Your task to perform on an android device: check android version Image 0: 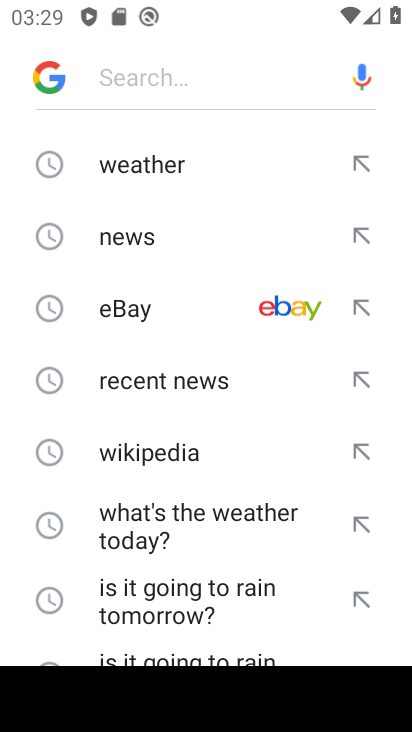
Step 0: press home button
Your task to perform on an android device: check android version Image 1: 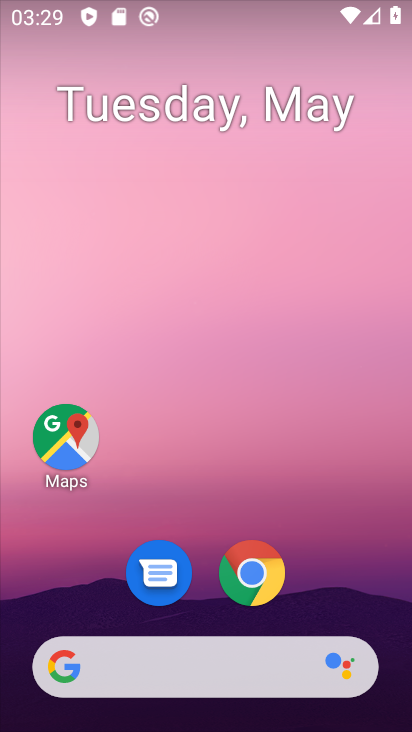
Step 1: drag from (219, 598) to (284, 62)
Your task to perform on an android device: check android version Image 2: 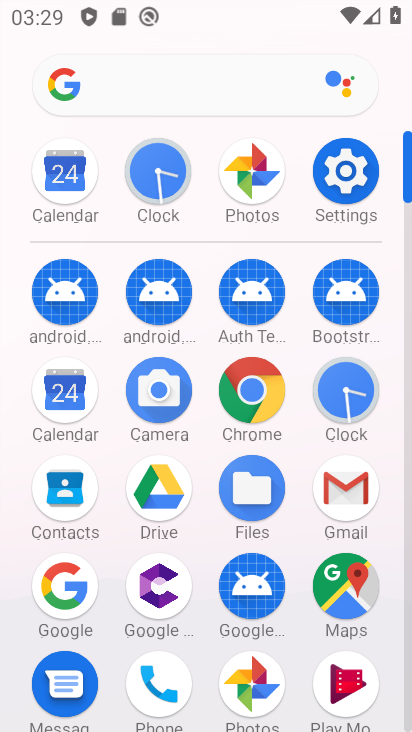
Step 2: click (379, 172)
Your task to perform on an android device: check android version Image 3: 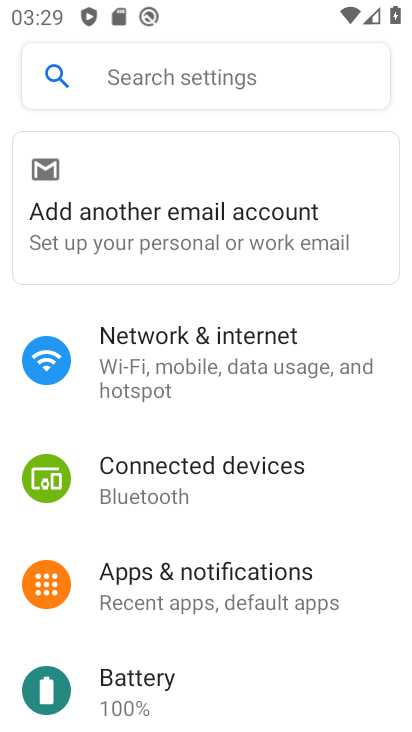
Step 3: drag from (199, 636) to (274, 202)
Your task to perform on an android device: check android version Image 4: 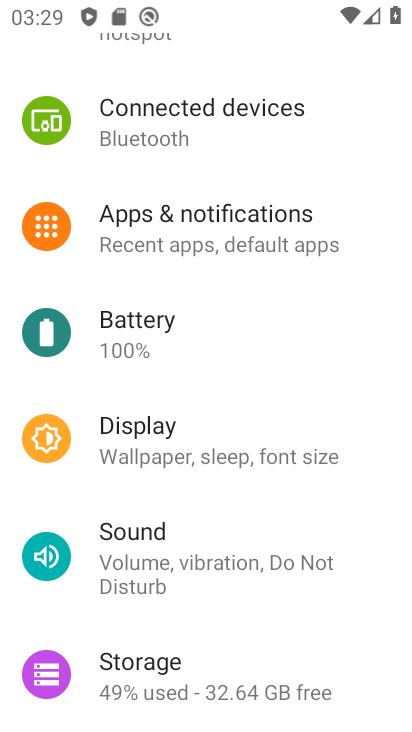
Step 4: drag from (209, 632) to (316, 89)
Your task to perform on an android device: check android version Image 5: 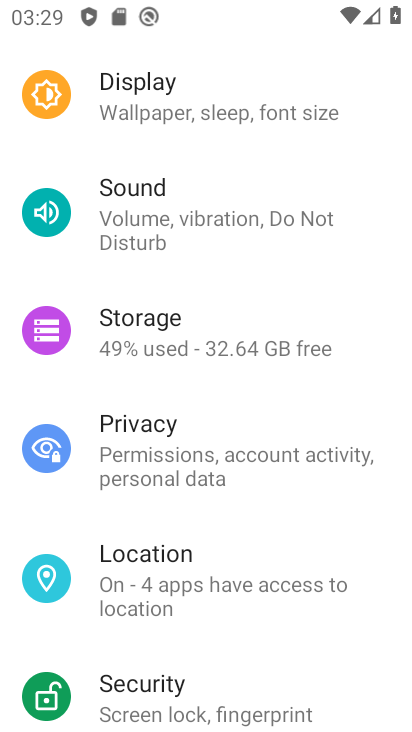
Step 5: drag from (205, 656) to (385, 48)
Your task to perform on an android device: check android version Image 6: 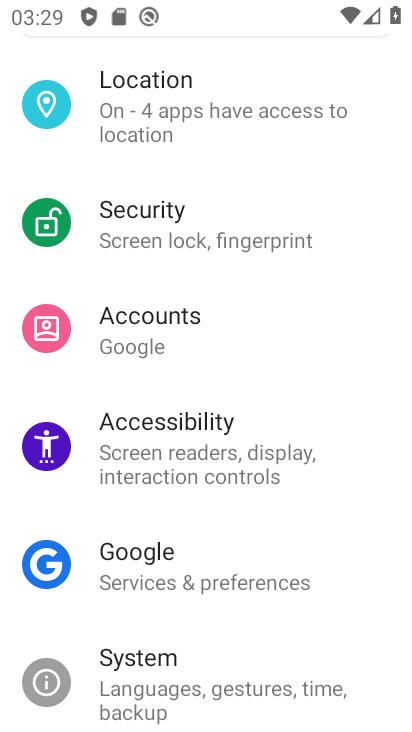
Step 6: drag from (201, 676) to (258, 18)
Your task to perform on an android device: check android version Image 7: 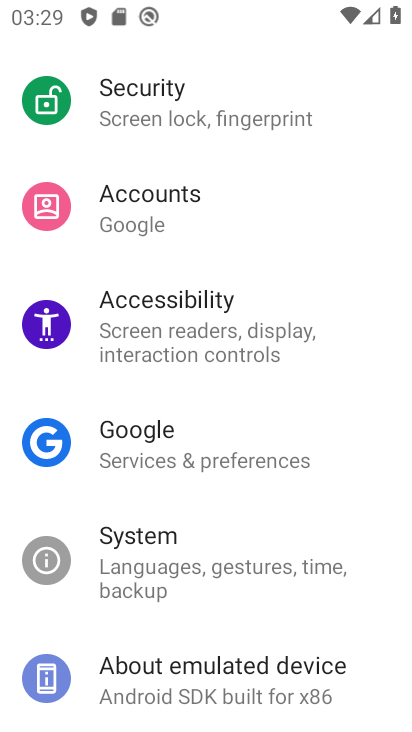
Step 7: click (191, 681)
Your task to perform on an android device: check android version Image 8: 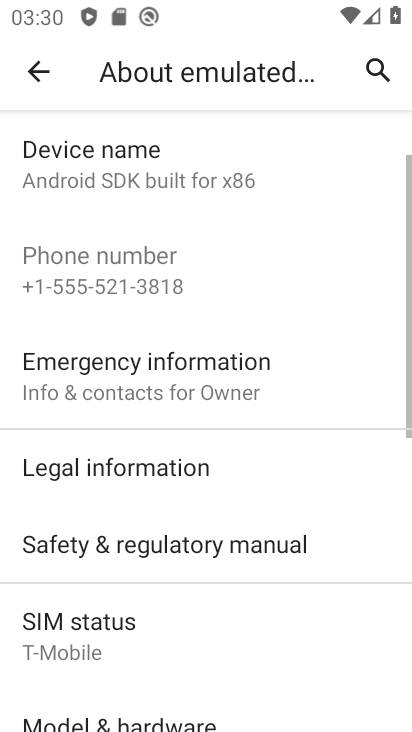
Step 8: drag from (121, 668) to (259, 68)
Your task to perform on an android device: check android version Image 9: 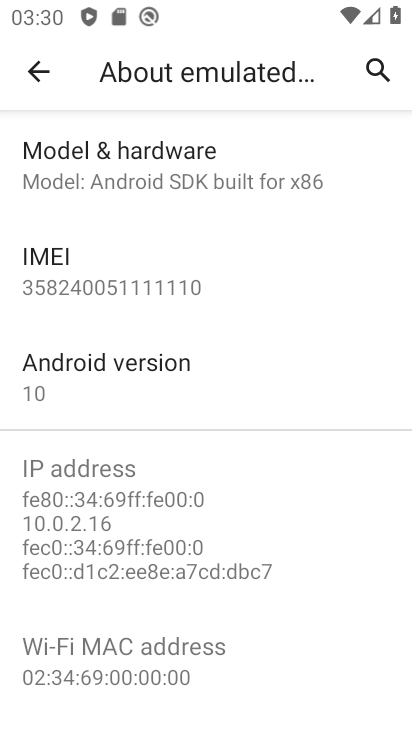
Step 9: click (51, 376)
Your task to perform on an android device: check android version Image 10: 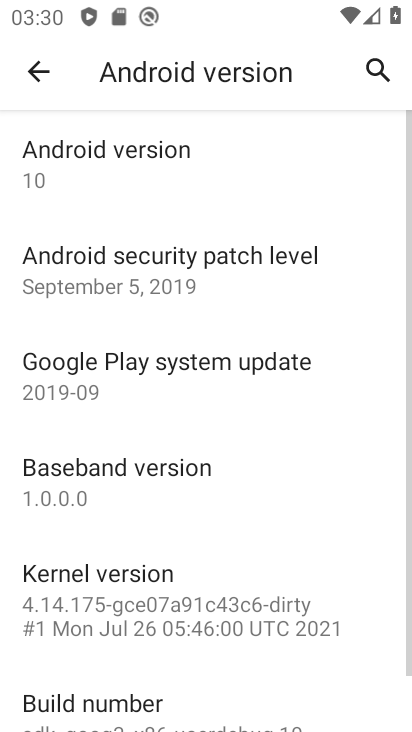
Step 10: click (139, 173)
Your task to perform on an android device: check android version Image 11: 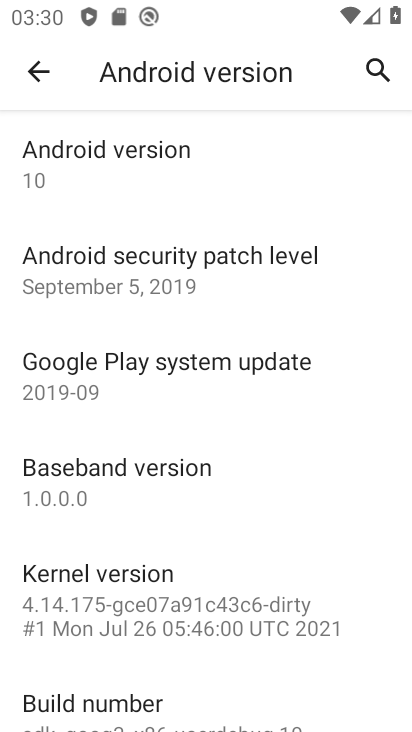
Step 11: task complete